Your task to perform on an android device: change notification settings in the gmail app Image 0: 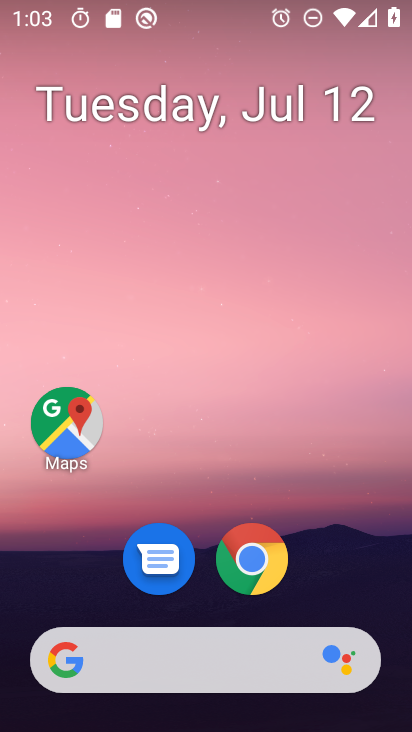
Step 0: click (162, 642)
Your task to perform on an android device: change notification settings in the gmail app Image 1: 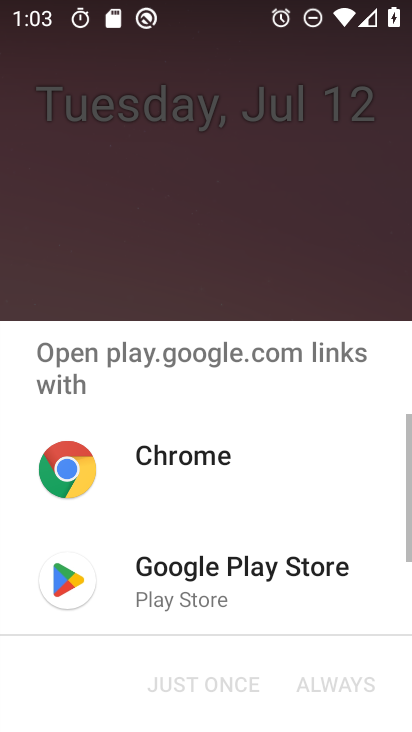
Step 1: press back button
Your task to perform on an android device: change notification settings in the gmail app Image 2: 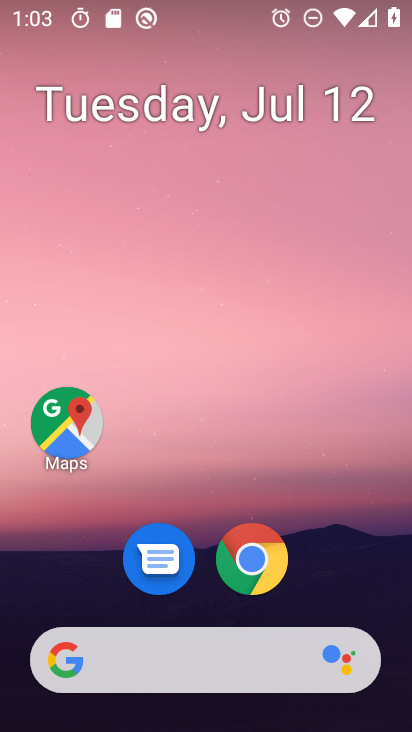
Step 2: drag from (203, 541) to (285, 1)
Your task to perform on an android device: change notification settings in the gmail app Image 3: 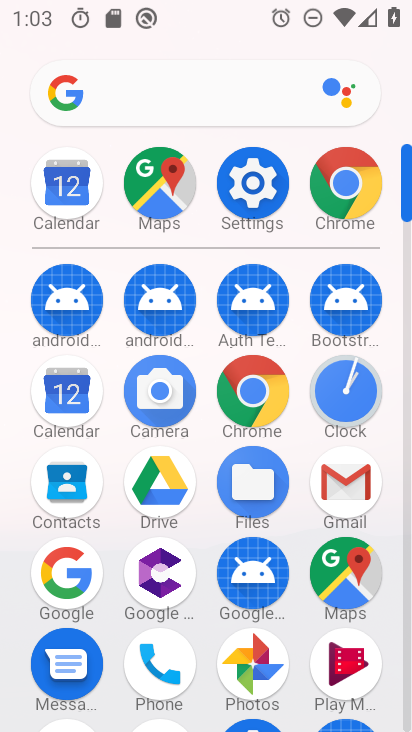
Step 3: click (351, 480)
Your task to perform on an android device: change notification settings in the gmail app Image 4: 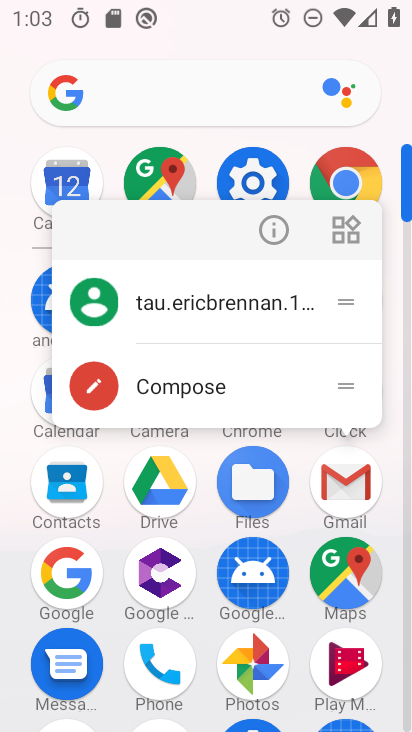
Step 4: click (283, 225)
Your task to perform on an android device: change notification settings in the gmail app Image 5: 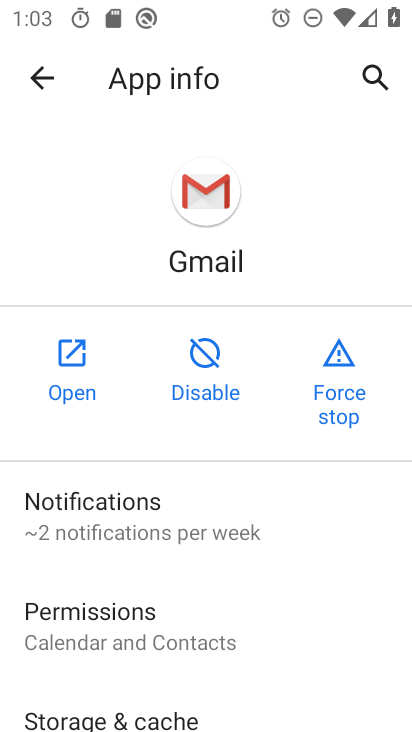
Step 5: click (131, 516)
Your task to perform on an android device: change notification settings in the gmail app Image 6: 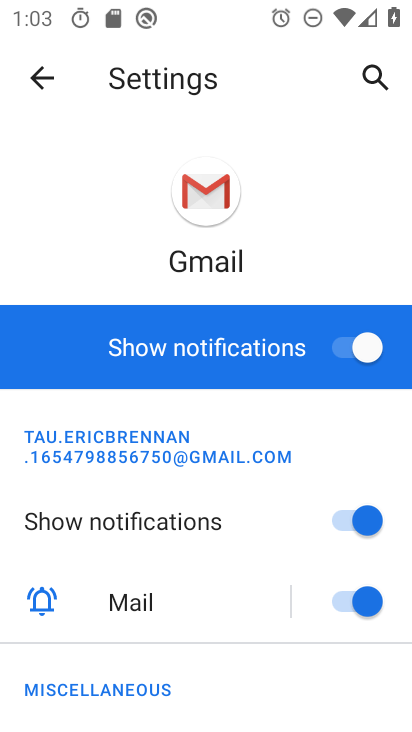
Step 6: drag from (232, 640) to (241, 544)
Your task to perform on an android device: change notification settings in the gmail app Image 7: 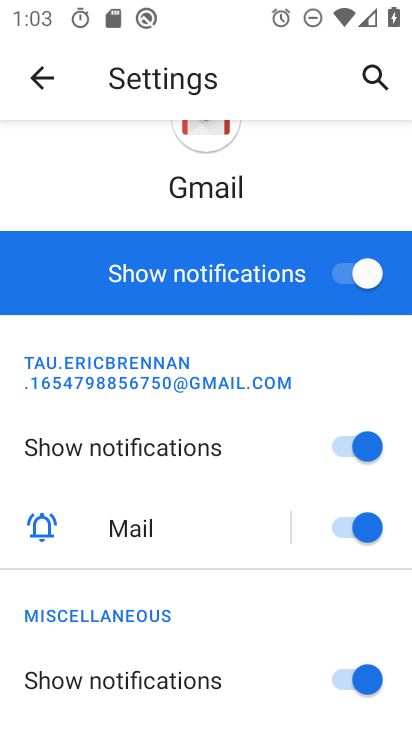
Step 7: click (364, 436)
Your task to perform on an android device: change notification settings in the gmail app Image 8: 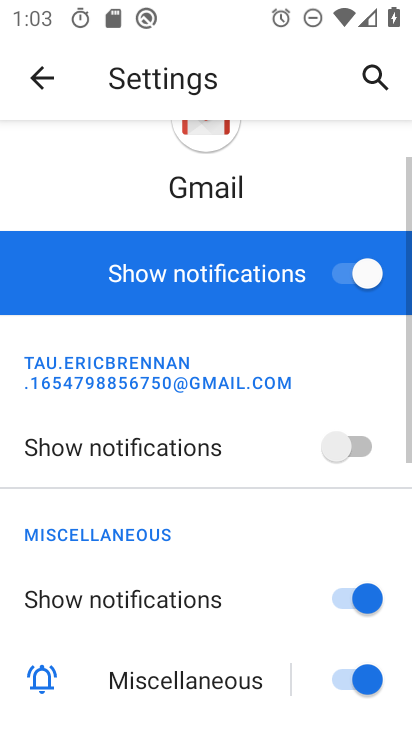
Step 8: task complete